Your task to perform on an android device: allow cookies in the chrome app Image 0: 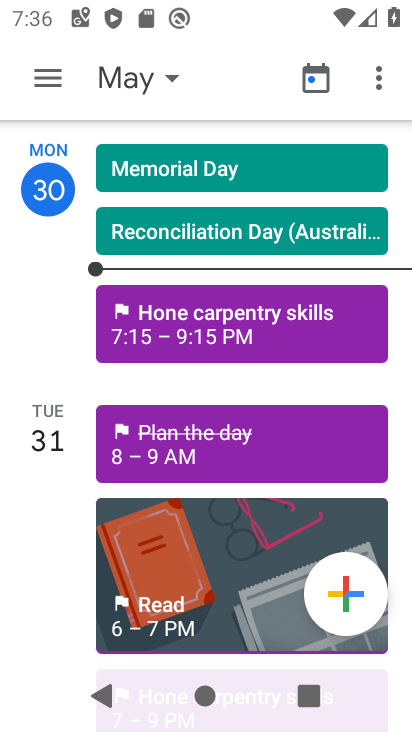
Step 0: press home button
Your task to perform on an android device: allow cookies in the chrome app Image 1: 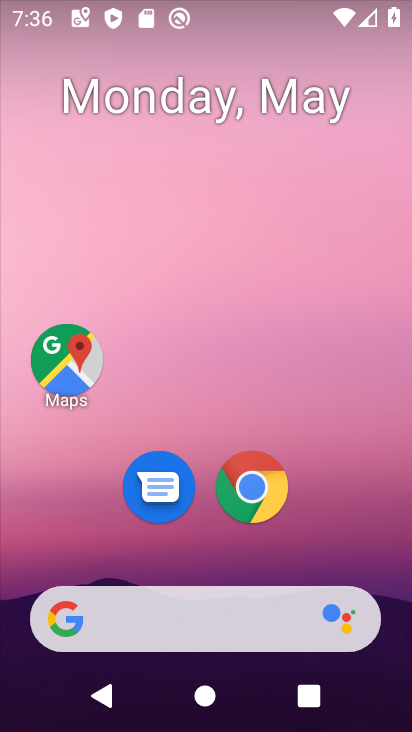
Step 1: drag from (334, 532) to (352, 139)
Your task to perform on an android device: allow cookies in the chrome app Image 2: 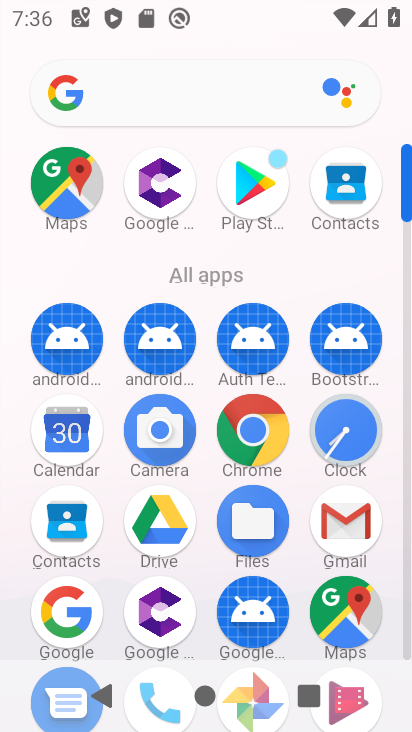
Step 2: click (261, 456)
Your task to perform on an android device: allow cookies in the chrome app Image 3: 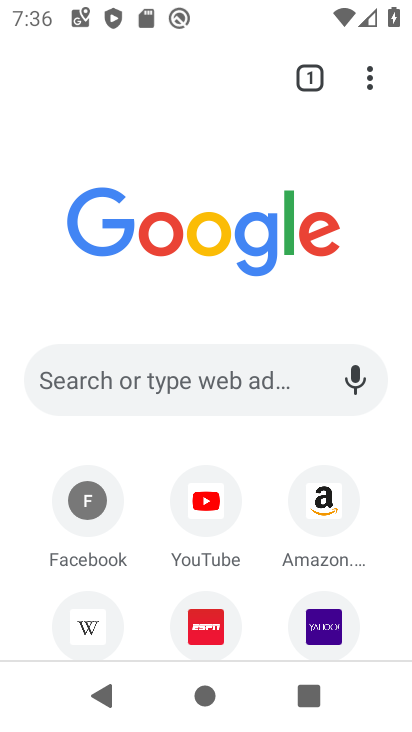
Step 3: click (368, 88)
Your task to perform on an android device: allow cookies in the chrome app Image 4: 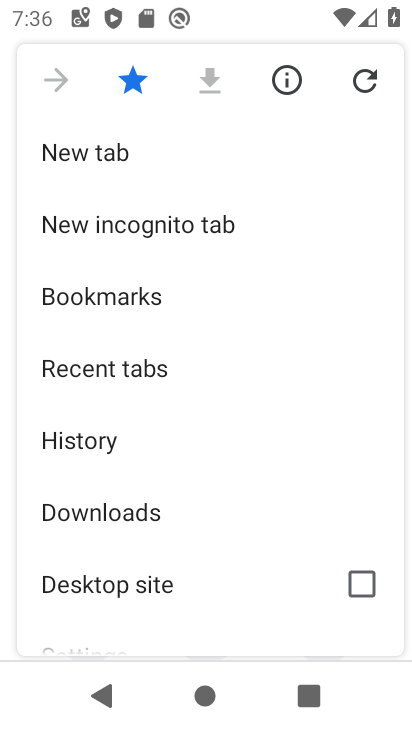
Step 4: drag from (307, 378) to (304, 294)
Your task to perform on an android device: allow cookies in the chrome app Image 5: 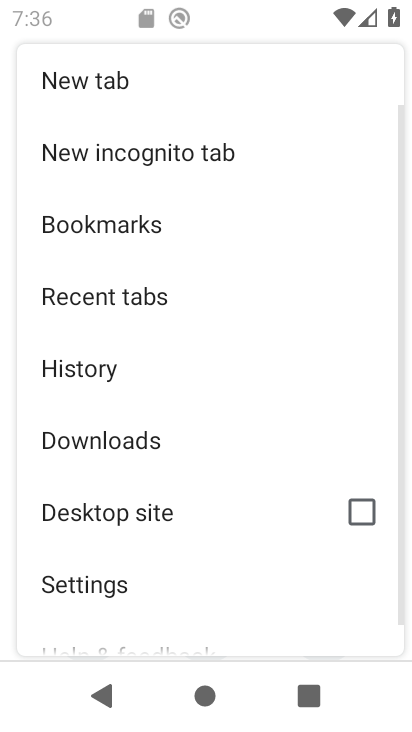
Step 5: drag from (300, 326) to (302, 250)
Your task to perform on an android device: allow cookies in the chrome app Image 6: 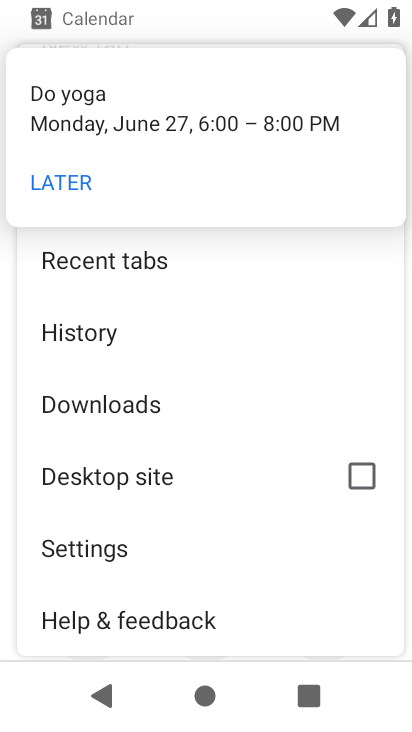
Step 6: drag from (274, 522) to (274, 431)
Your task to perform on an android device: allow cookies in the chrome app Image 7: 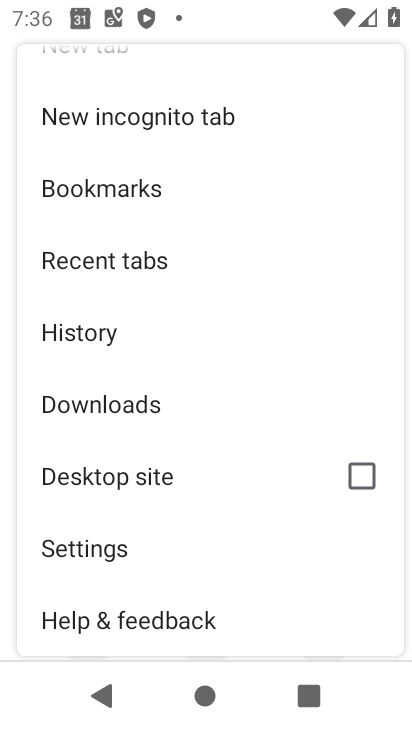
Step 7: click (179, 550)
Your task to perform on an android device: allow cookies in the chrome app Image 8: 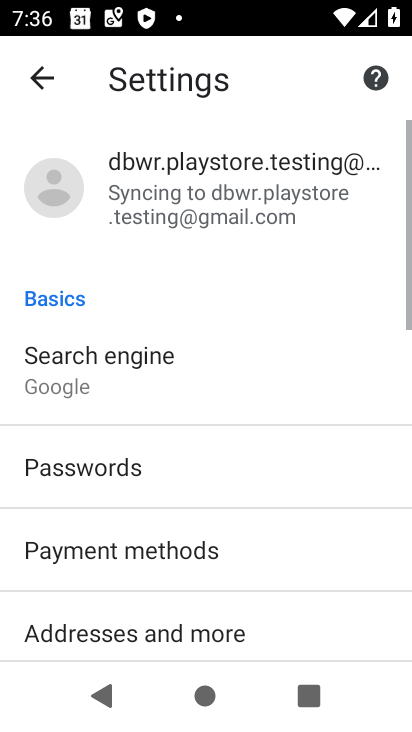
Step 8: drag from (274, 567) to (287, 479)
Your task to perform on an android device: allow cookies in the chrome app Image 9: 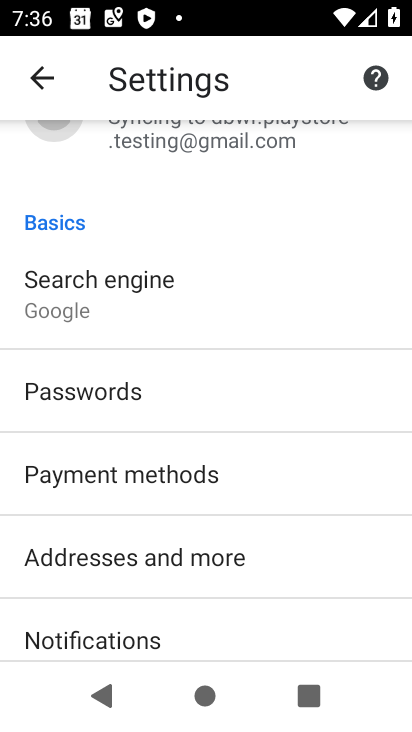
Step 9: drag from (340, 589) to (346, 471)
Your task to perform on an android device: allow cookies in the chrome app Image 10: 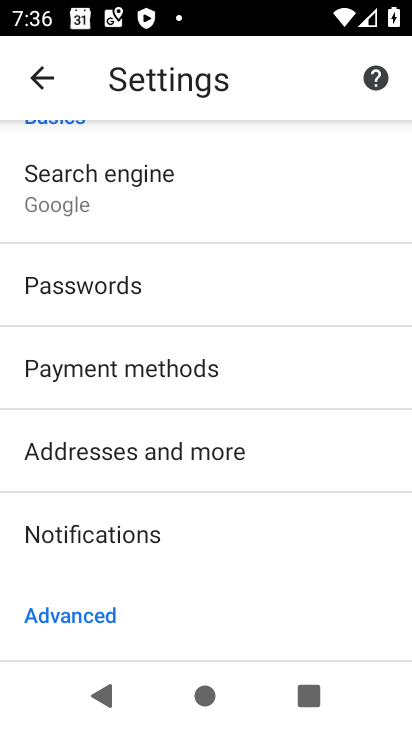
Step 10: drag from (347, 581) to (345, 456)
Your task to perform on an android device: allow cookies in the chrome app Image 11: 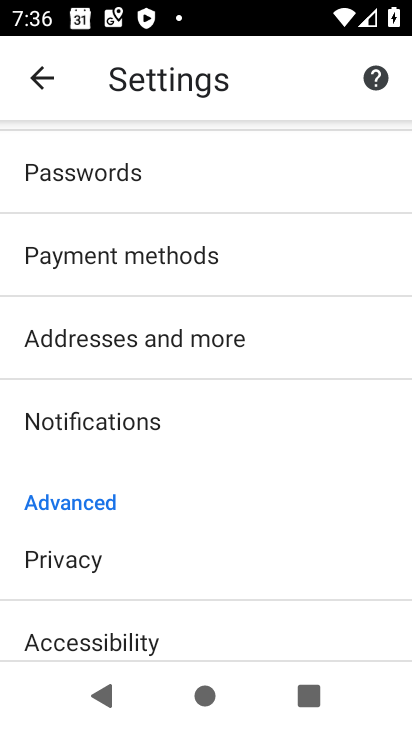
Step 11: drag from (340, 504) to (351, 416)
Your task to perform on an android device: allow cookies in the chrome app Image 12: 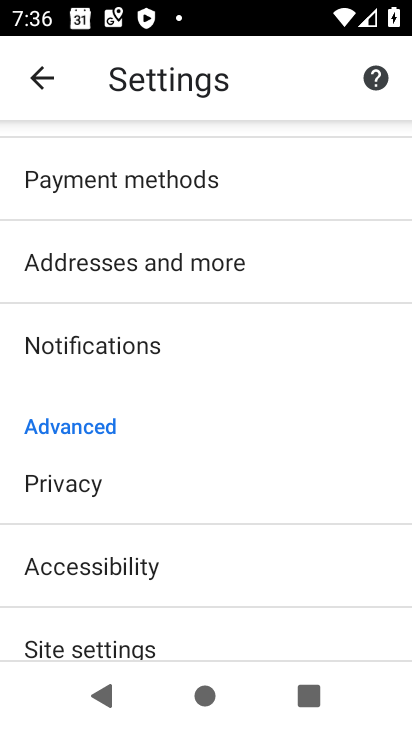
Step 12: drag from (309, 557) to (319, 459)
Your task to perform on an android device: allow cookies in the chrome app Image 13: 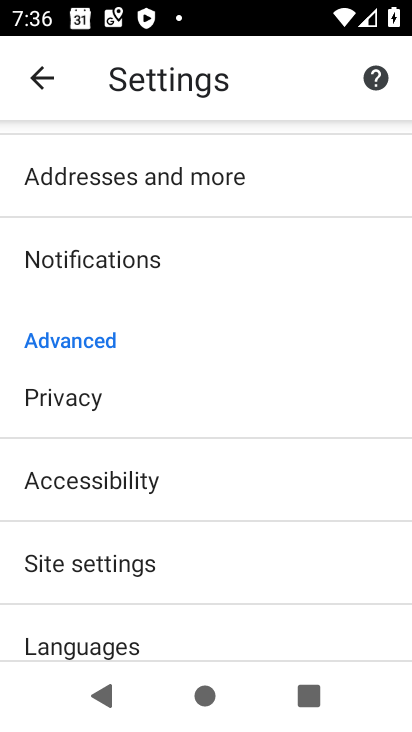
Step 13: drag from (307, 551) to (312, 411)
Your task to perform on an android device: allow cookies in the chrome app Image 14: 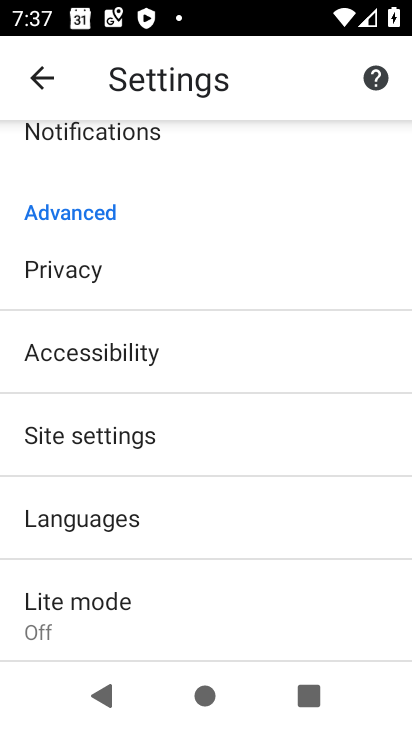
Step 14: drag from (297, 570) to (320, 380)
Your task to perform on an android device: allow cookies in the chrome app Image 15: 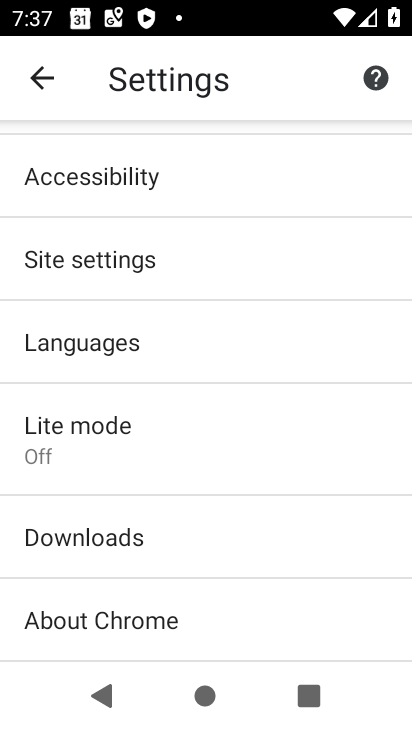
Step 15: click (204, 261)
Your task to perform on an android device: allow cookies in the chrome app Image 16: 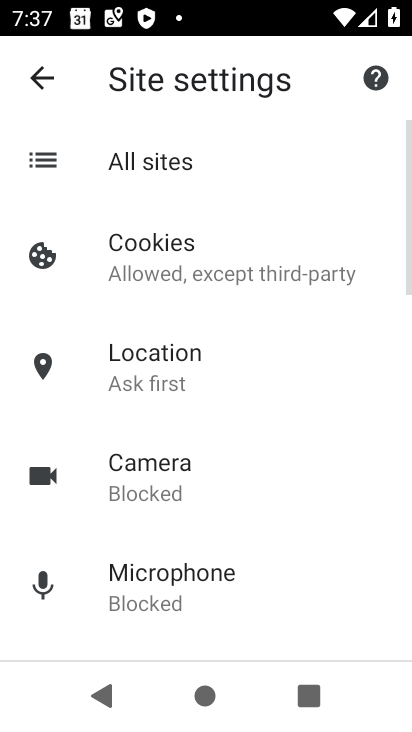
Step 16: click (204, 261)
Your task to perform on an android device: allow cookies in the chrome app Image 17: 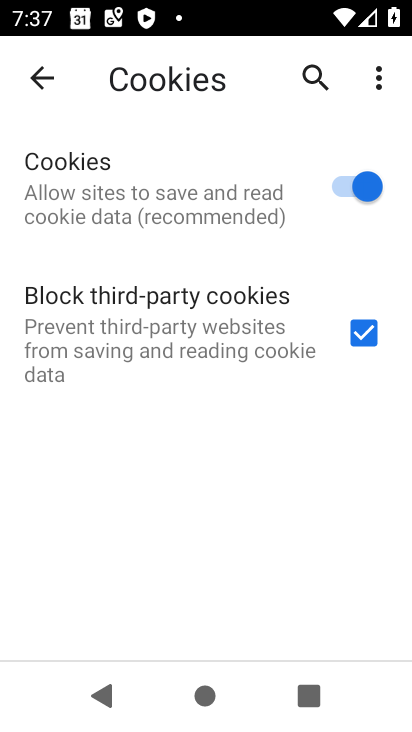
Step 17: task complete